Your task to perform on an android device: check the backup settings in the google photos Image 0: 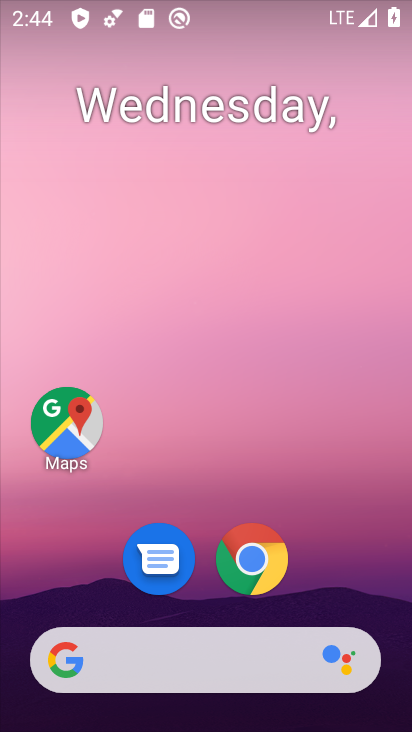
Step 0: drag from (359, 550) to (364, 152)
Your task to perform on an android device: check the backup settings in the google photos Image 1: 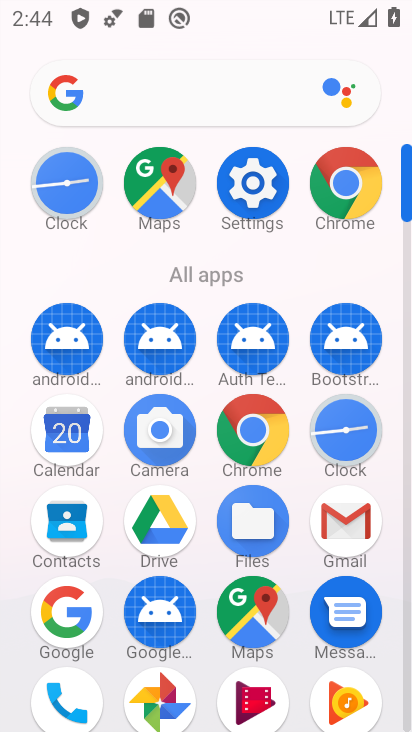
Step 1: drag from (300, 585) to (292, 306)
Your task to perform on an android device: check the backup settings in the google photos Image 2: 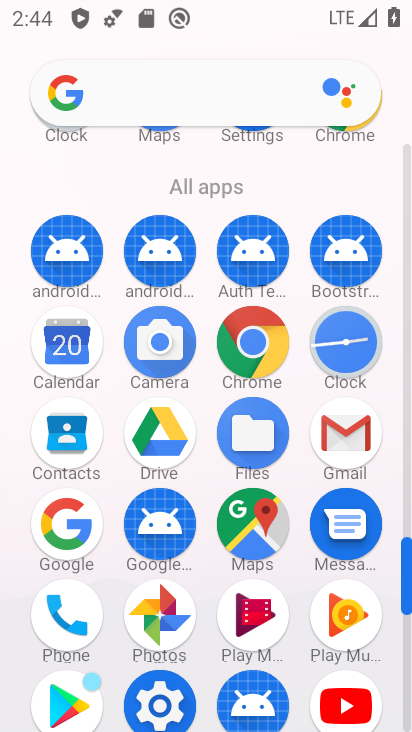
Step 2: click (164, 607)
Your task to perform on an android device: check the backup settings in the google photos Image 3: 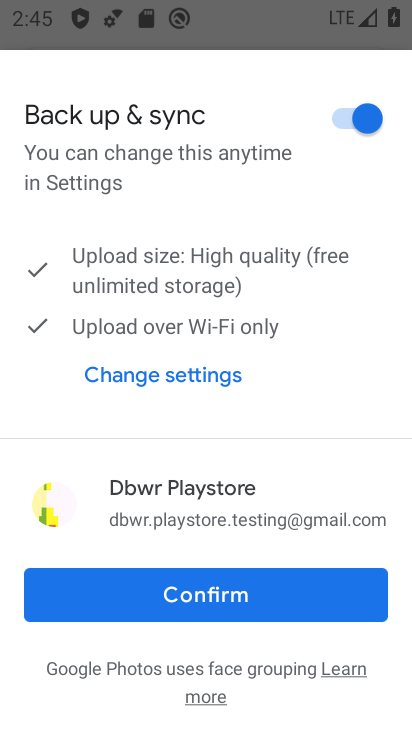
Step 3: click (182, 601)
Your task to perform on an android device: check the backup settings in the google photos Image 4: 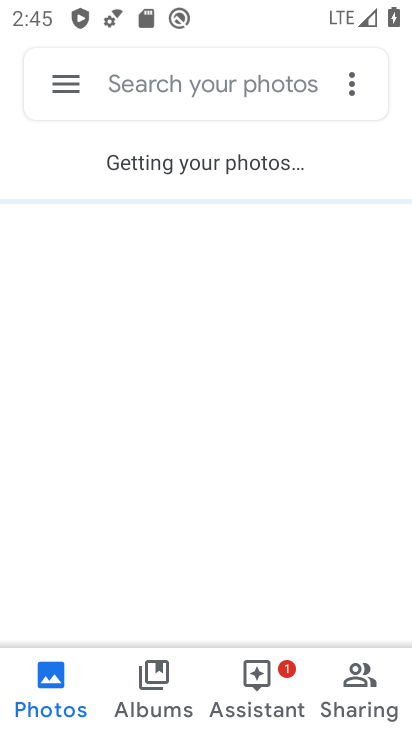
Step 4: click (73, 79)
Your task to perform on an android device: check the backup settings in the google photos Image 5: 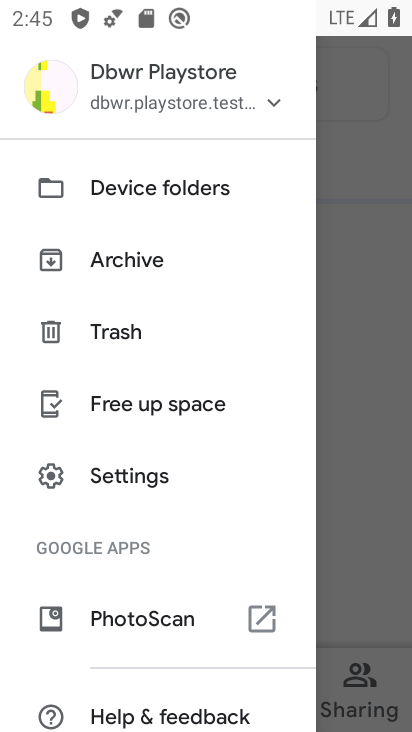
Step 5: click (123, 480)
Your task to perform on an android device: check the backup settings in the google photos Image 6: 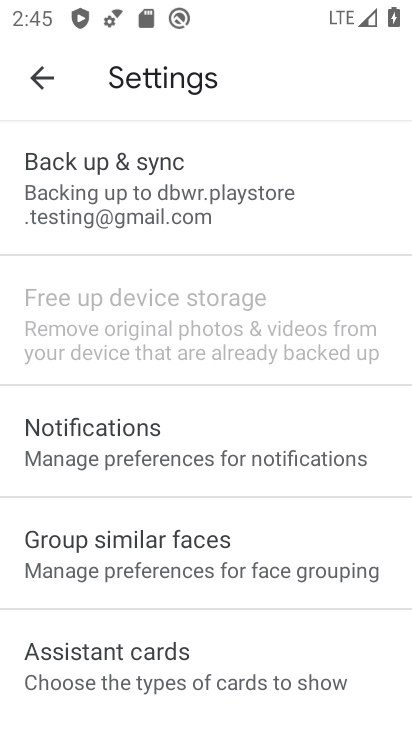
Step 6: click (182, 209)
Your task to perform on an android device: check the backup settings in the google photos Image 7: 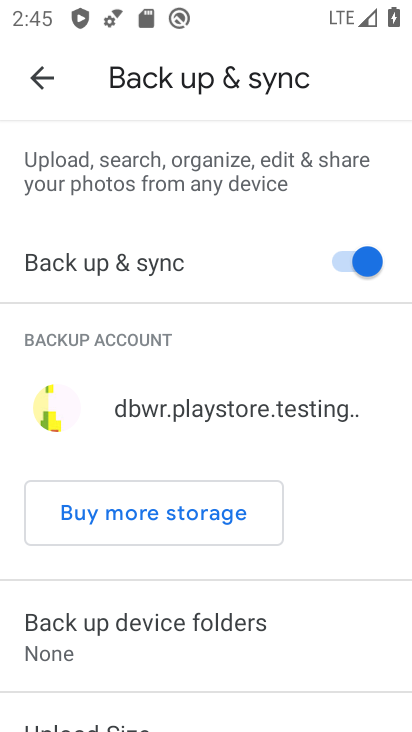
Step 7: task complete